Your task to perform on an android device: delete location history Image 0: 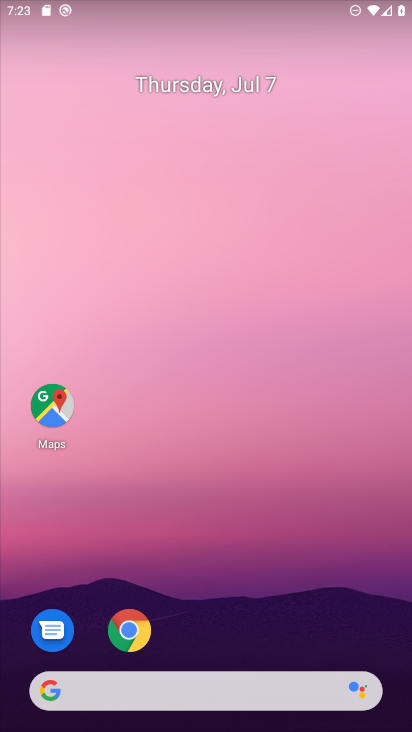
Step 0: drag from (279, 583) to (194, 212)
Your task to perform on an android device: delete location history Image 1: 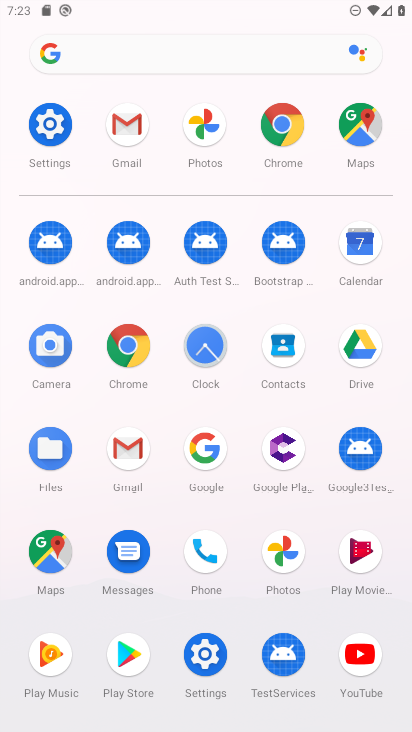
Step 1: click (355, 127)
Your task to perform on an android device: delete location history Image 2: 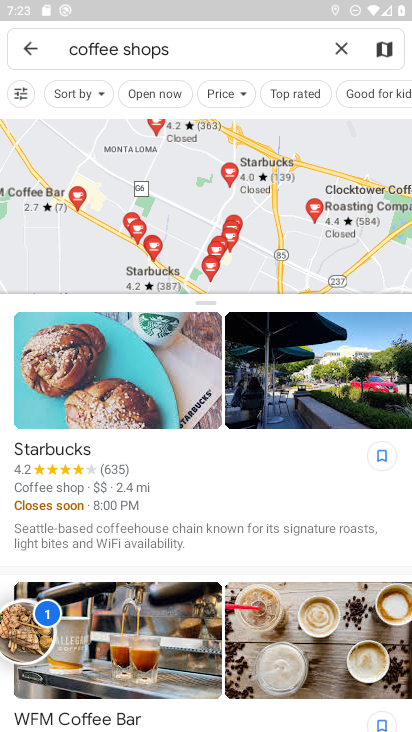
Step 2: click (24, 49)
Your task to perform on an android device: delete location history Image 3: 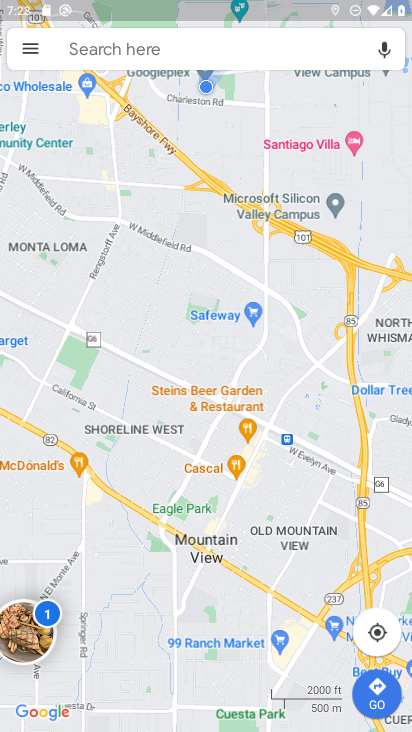
Step 3: click (24, 49)
Your task to perform on an android device: delete location history Image 4: 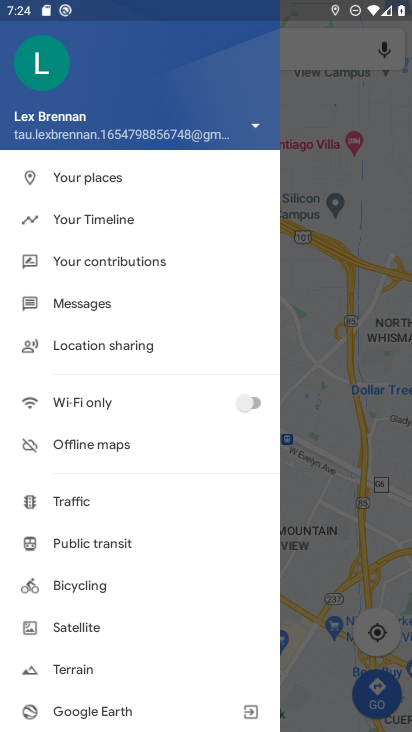
Step 4: click (107, 219)
Your task to perform on an android device: delete location history Image 5: 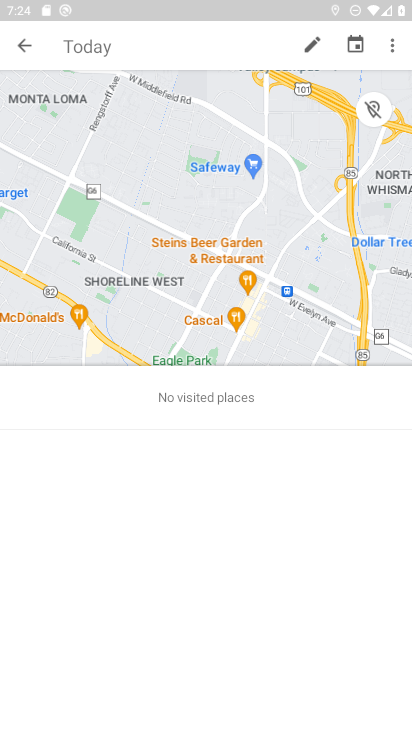
Step 5: click (393, 48)
Your task to perform on an android device: delete location history Image 6: 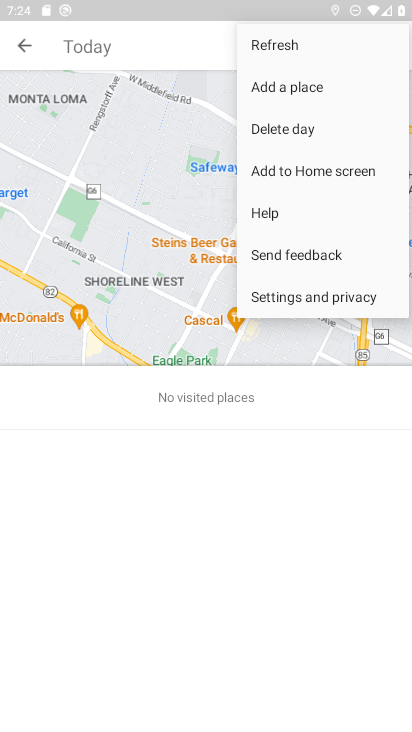
Step 6: click (311, 298)
Your task to perform on an android device: delete location history Image 7: 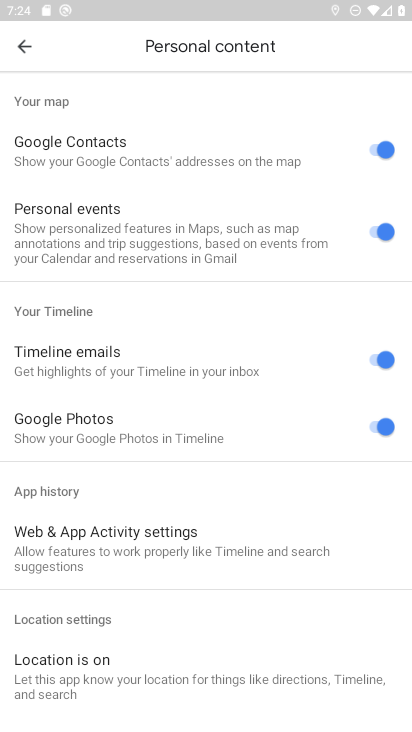
Step 7: drag from (267, 581) to (240, 281)
Your task to perform on an android device: delete location history Image 8: 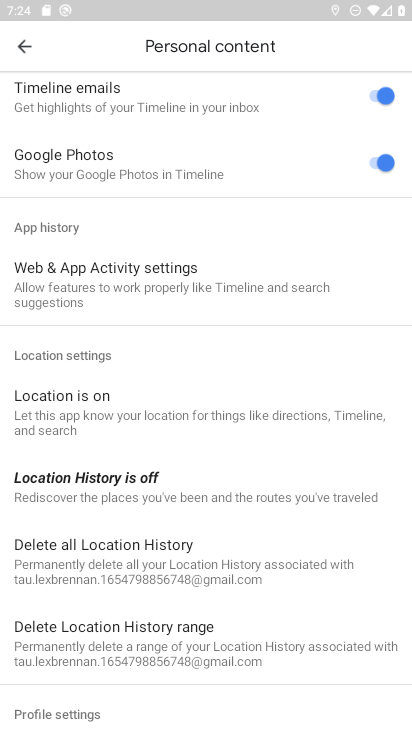
Step 8: click (109, 543)
Your task to perform on an android device: delete location history Image 9: 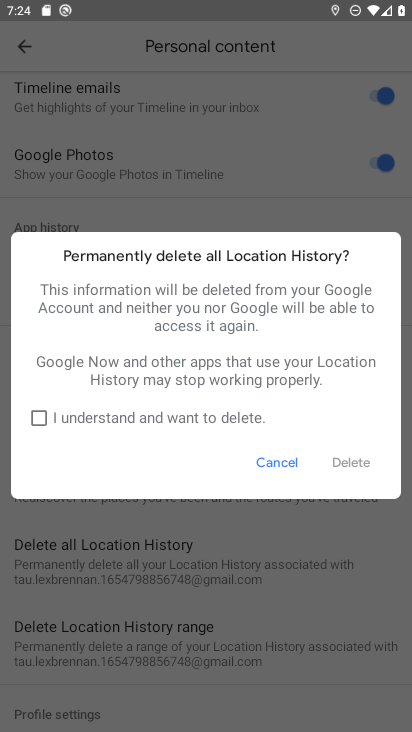
Step 9: click (37, 417)
Your task to perform on an android device: delete location history Image 10: 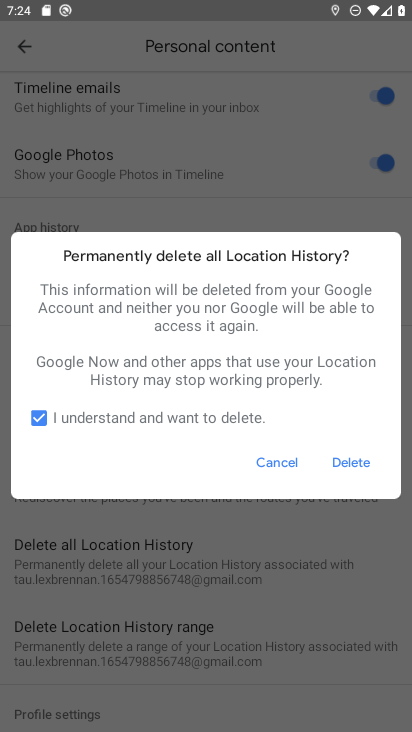
Step 10: click (350, 462)
Your task to perform on an android device: delete location history Image 11: 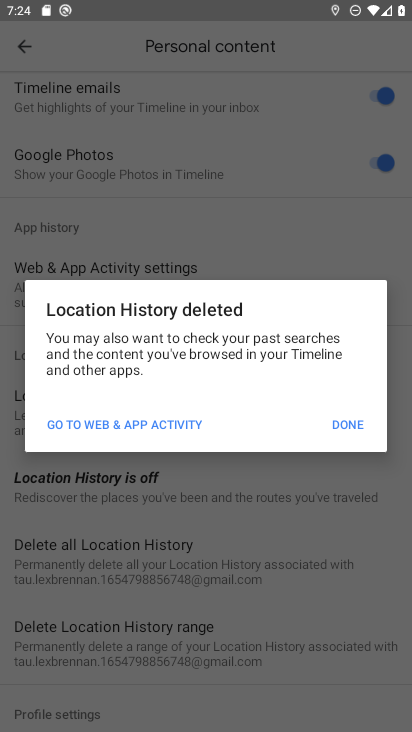
Step 11: click (340, 419)
Your task to perform on an android device: delete location history Image 12: 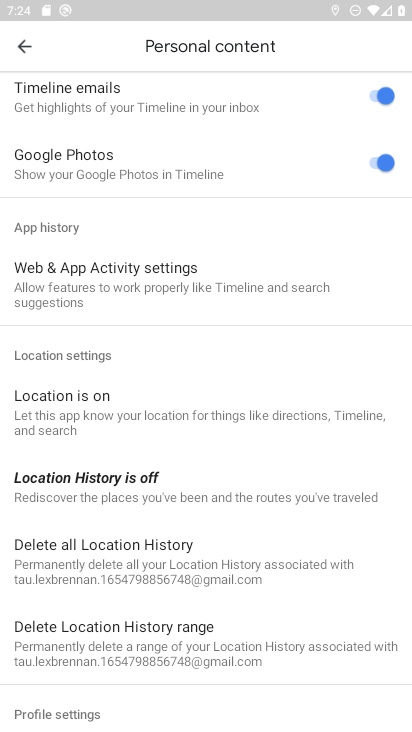
Step 12: task complete